Your task to perform on an android device: Open Google Chrome and click the shortcut for Amazon.com Image 0: 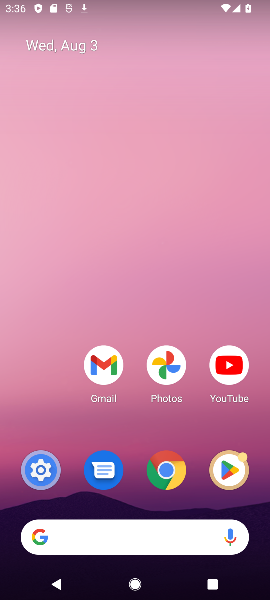
Step 0: click (169, 467)
Your task to perform on an android device: Open Google Chrome and click the shortcut for Amazon.com Image 1: 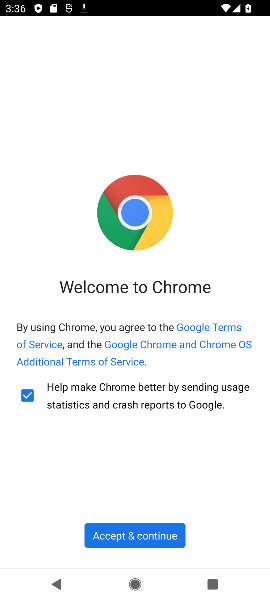
Step 1: click (132, 543)
Your task to perform on an android device: Open Google Chrome and click the shortcut for Amazon.com Image 2: 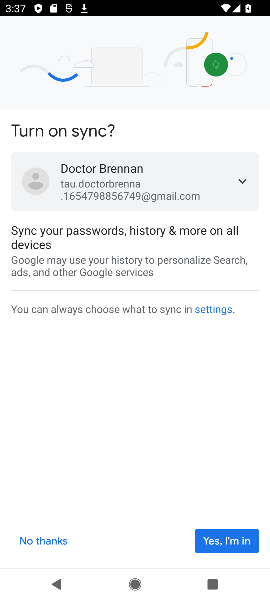
Step 2: click (221, 541)
Your task to perform on an android device: Open Google Chrome and click the shortcut for Amazon.com Image 3: 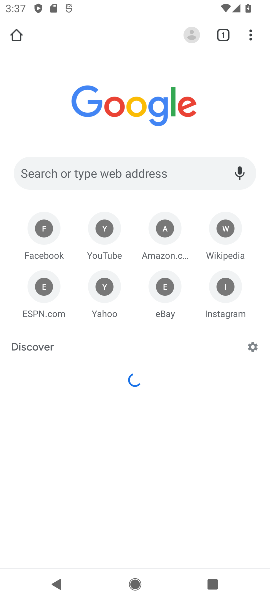
Step 3: click (161, 233)
Your task to perform on an android device: Open Google Chrome and click the shortcut for Amazon.com Image 4: 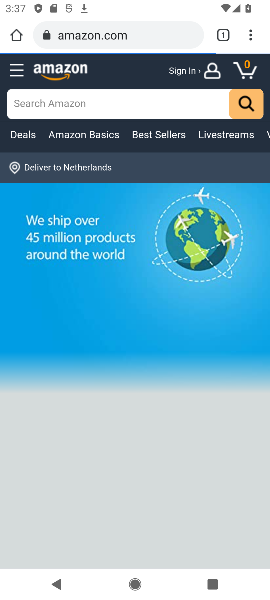
Step 4: task complete